Your task to perform on an android device: Open Google Chrome and click the shortcut for Amazon.com Image 0: 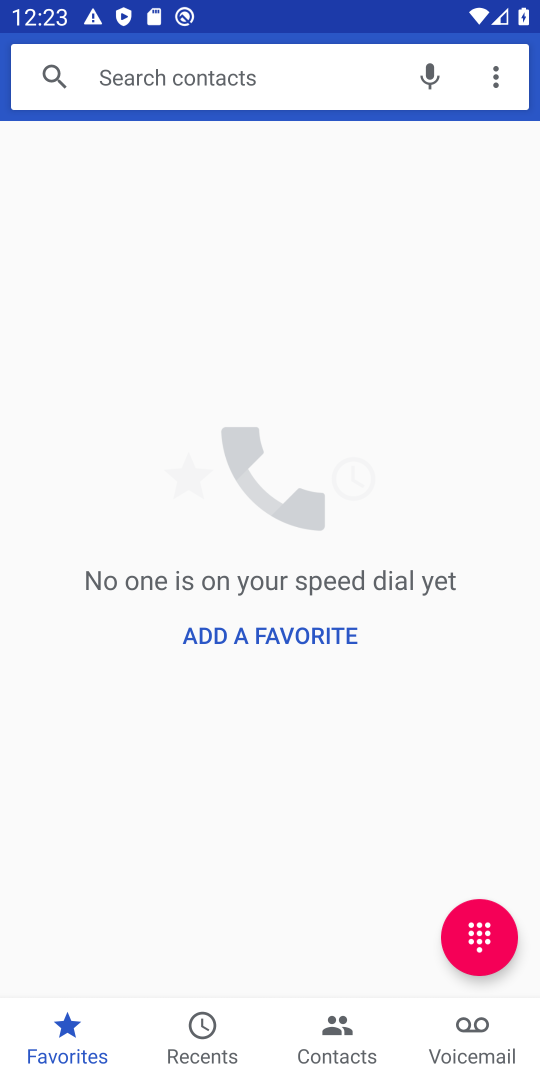
Step 0: press home button
Your task to perform on an android device: Open Google Chrome and click the shortcut for Amazon.com Image 1: 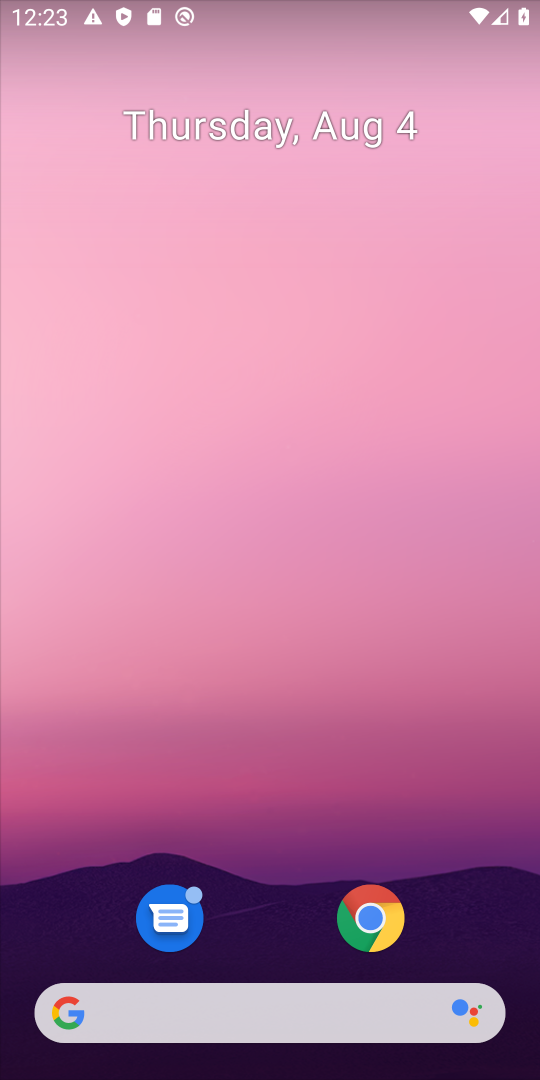
Step 1: click (374, 923)
Your task to perform on an android device: Open Google Chrome and click the shortcut for Amazon.com Image 2: 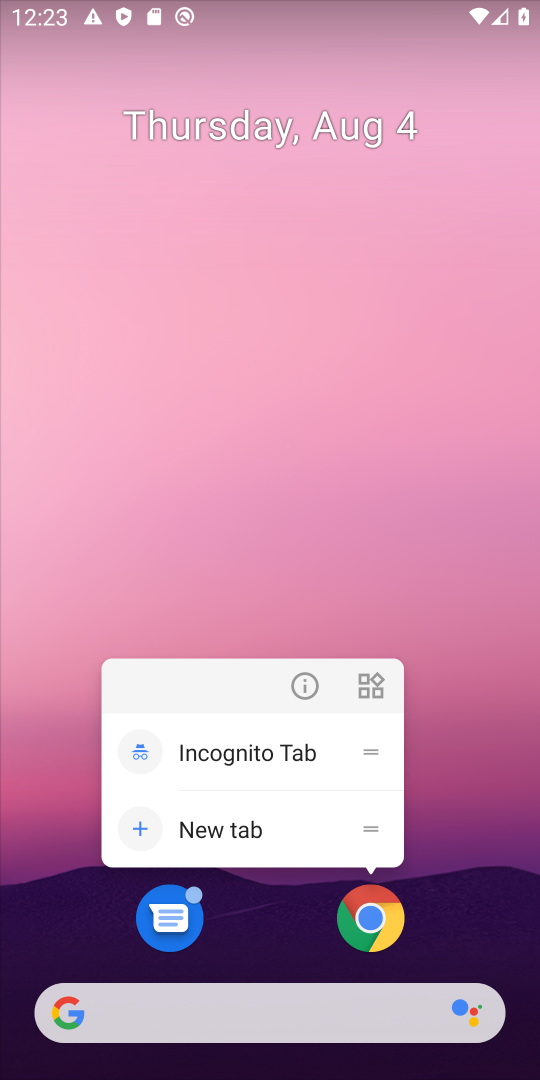
Step 2: click (325, 923)
Your task to perform on an android device: Open Google Chrome and click the shortcut for Amazon.com Image 3: 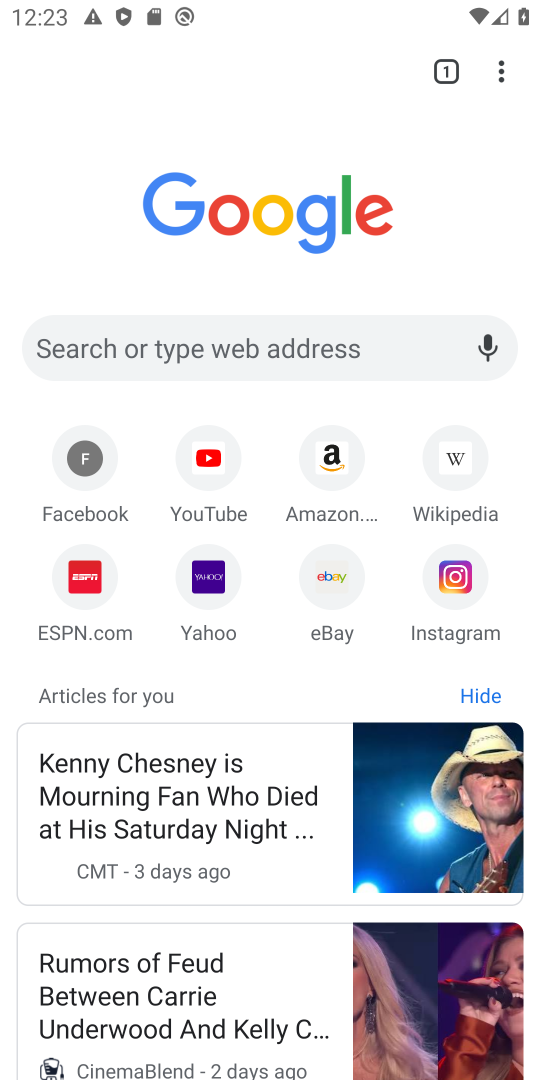
Step 3: click (492, 64)
Your task to perform on an android device: Open Google Chrome and click the shortcut for Amazon.com Image 4: 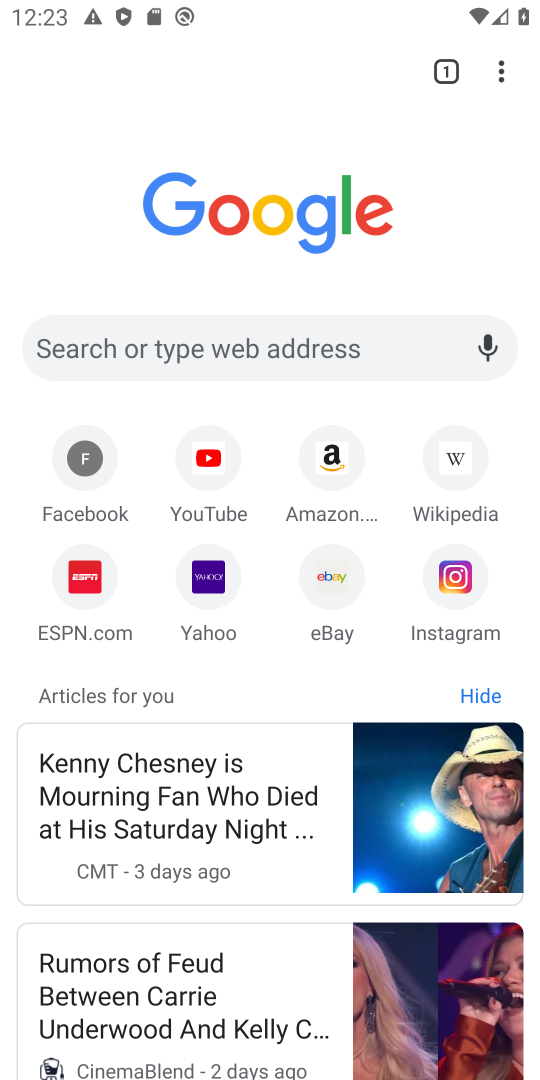
Step 4: click (310, 461)
Your task to perform on an android device: Open Google Chrome and click the shortcut for Amazon.com Image 5: 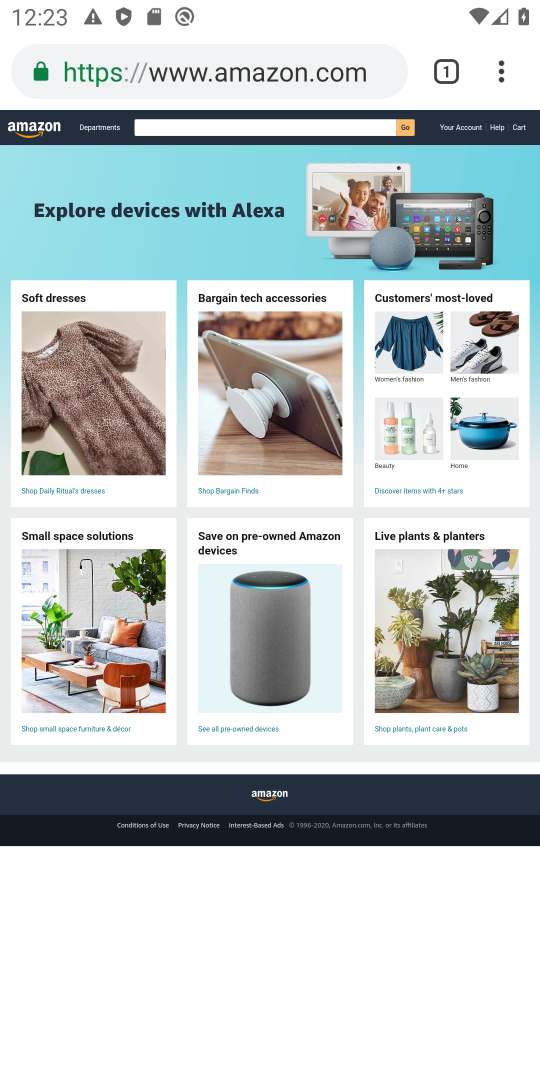
Step 5: task complete